Your task to perform on an android device: uninstall "Flipkart Online Shopping App" Image 0: 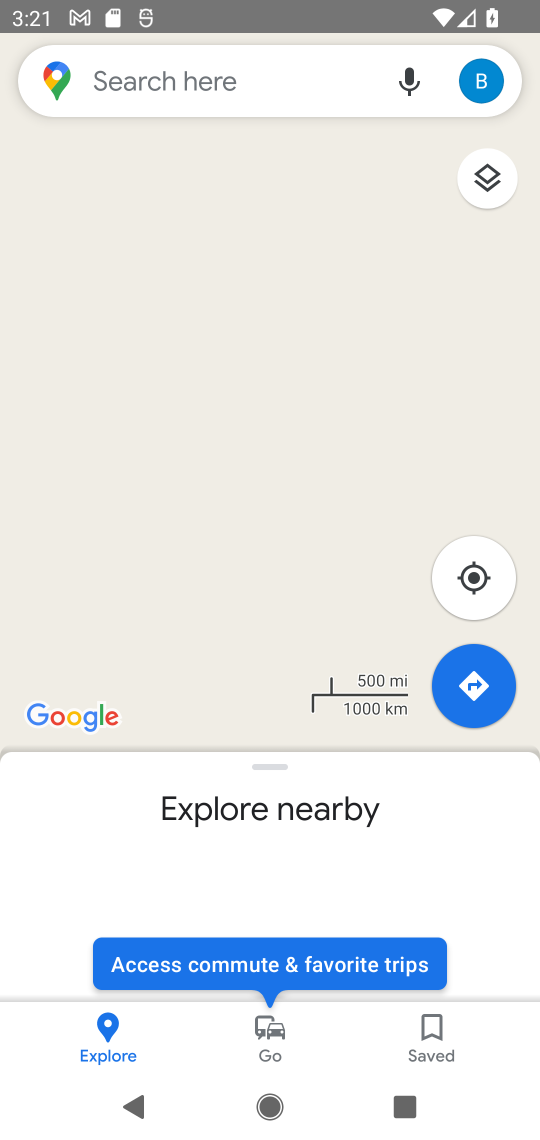
Step 0: press home button
Your task to perform on an android device: uninstall "Flipkart Online Shopping App" Image 1: 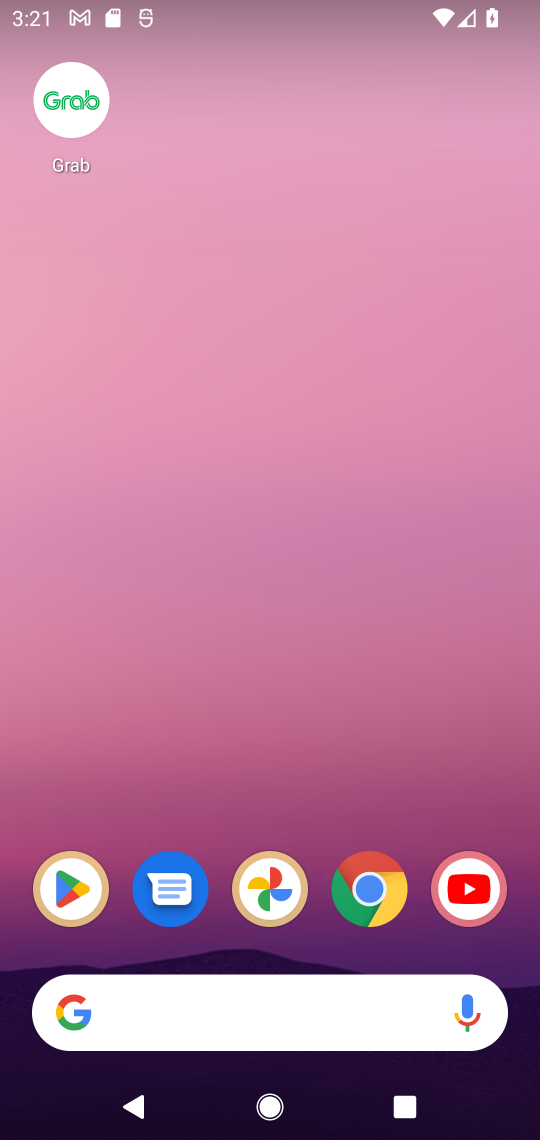
Step 1: click (78, 895)
Your task to perform on an android device: uninstall "Flipkart Online Shopping App" Image 2: 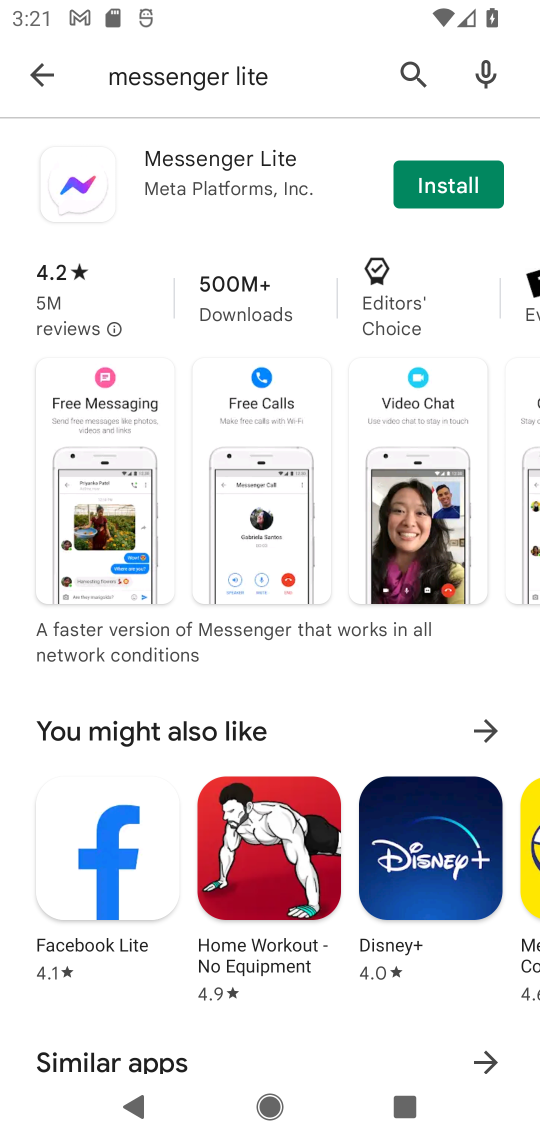
Step 2: click (400, 84)
Your task to perform on an android device: uninstall "Flipkart Online Shopping App" Image 3: 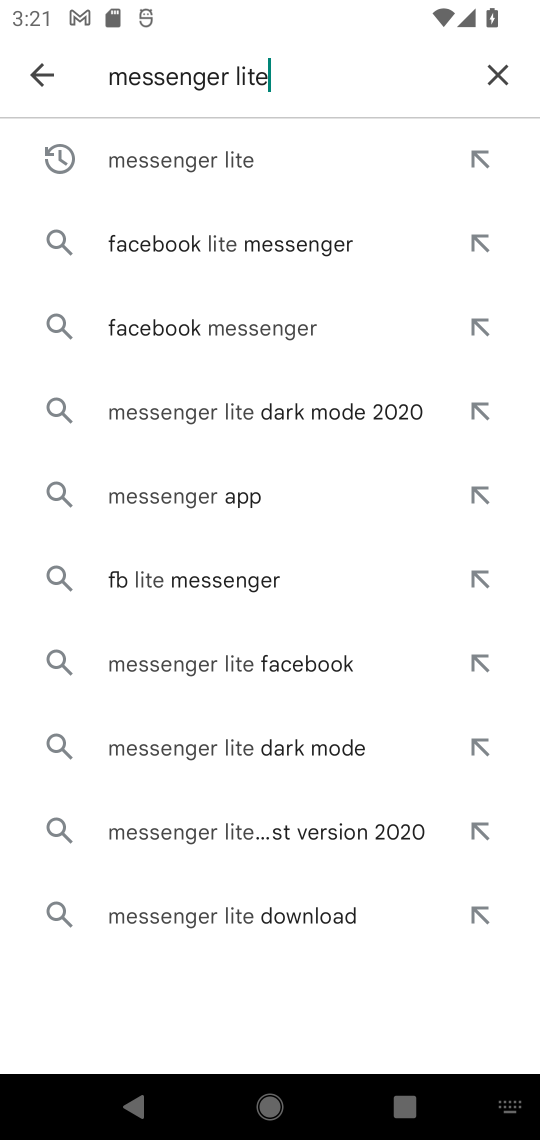
Step 3: click (495, 86)
Your task to perform on an android device: uninstall "Flipkart Online Shopping App" Image 4: 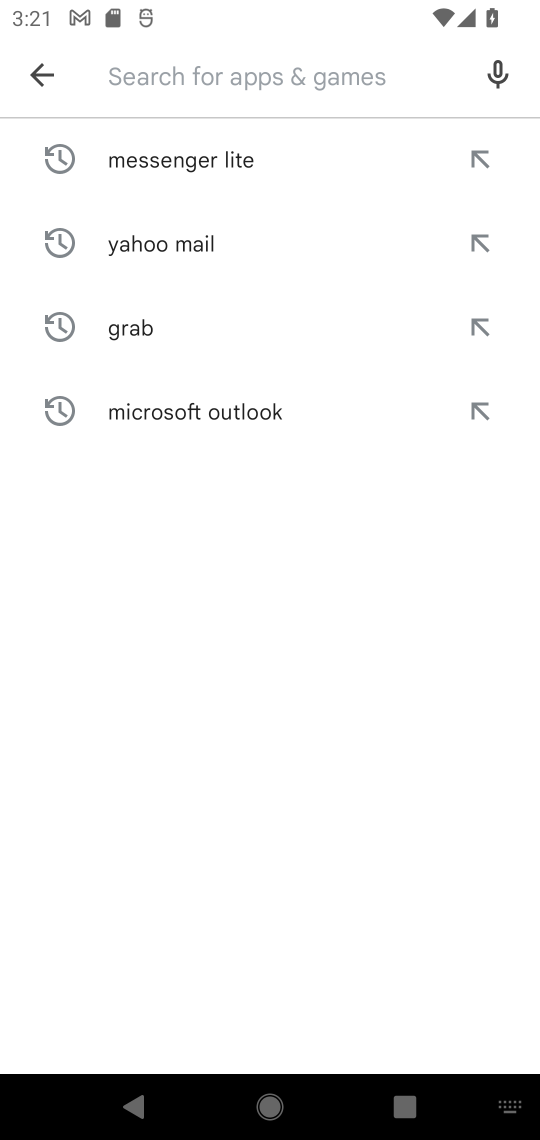
Step 4: type "Flipkart Online Shopping App"
Your task to perform on an android device: uninstall "Flipkart Online Shopping App" Image 5: 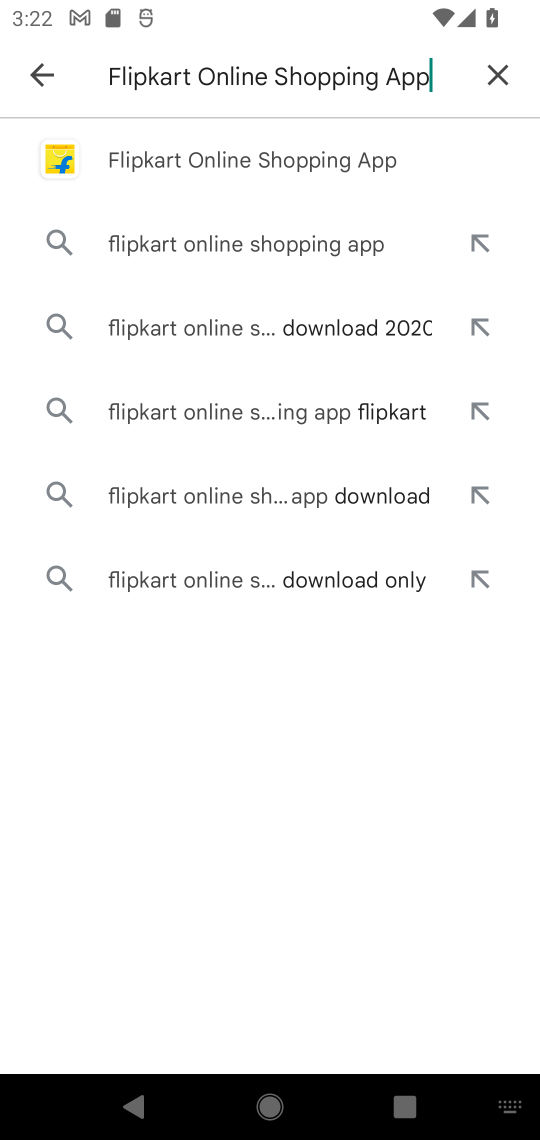
Step 5: click (230, 156)
Your task to perform on an android device: uninstall "Flipkart Online Shopping App" Image 6: 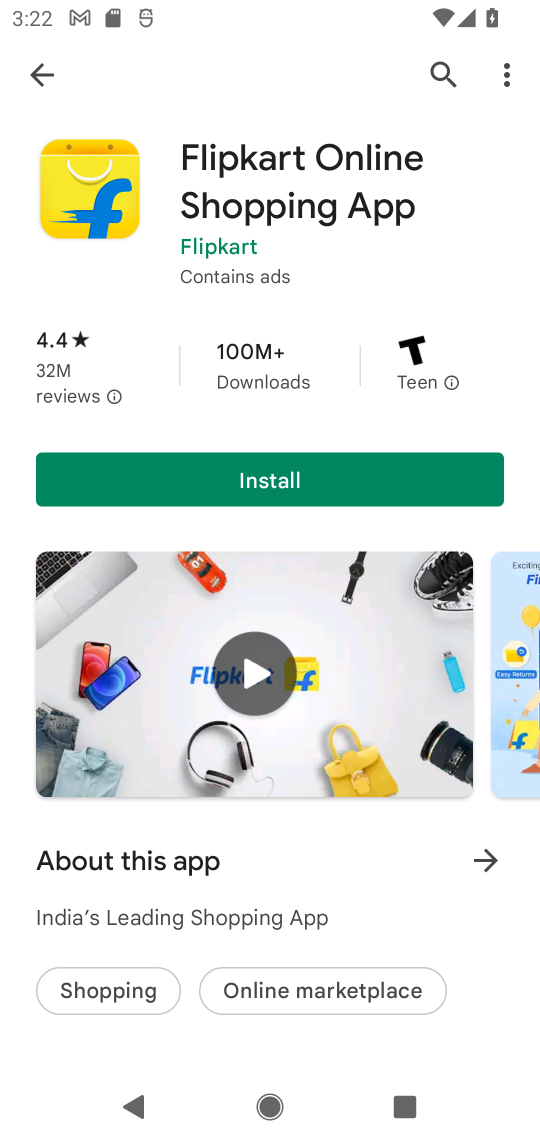
Step 6: task complete